Your task to perform on an android device: turn on translation in the chrome app Image 0: 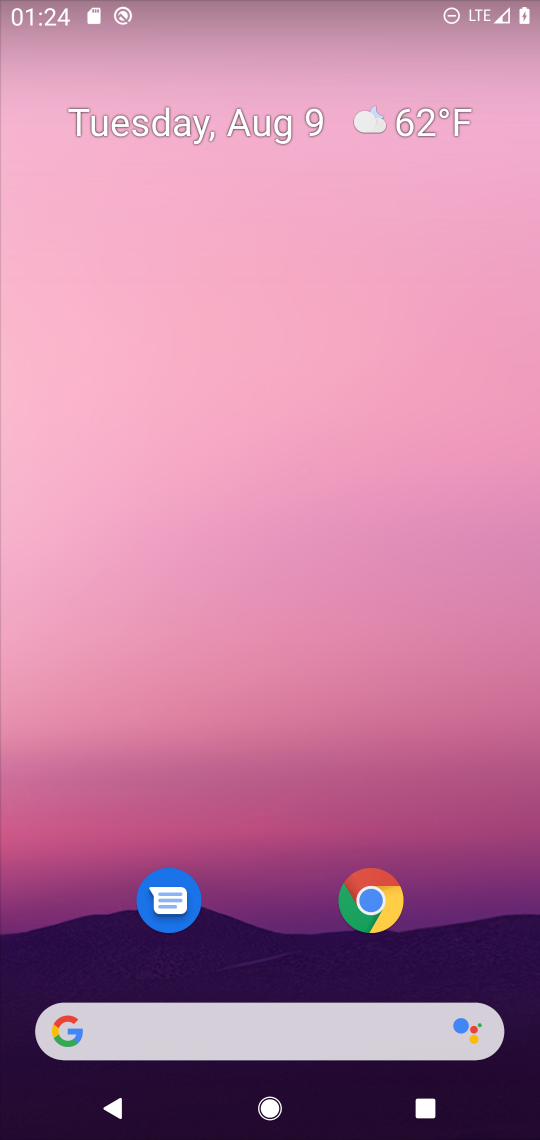
Step 0: press home button
Your task to perform on an android device: turn on translation in the chrome app Image 1: 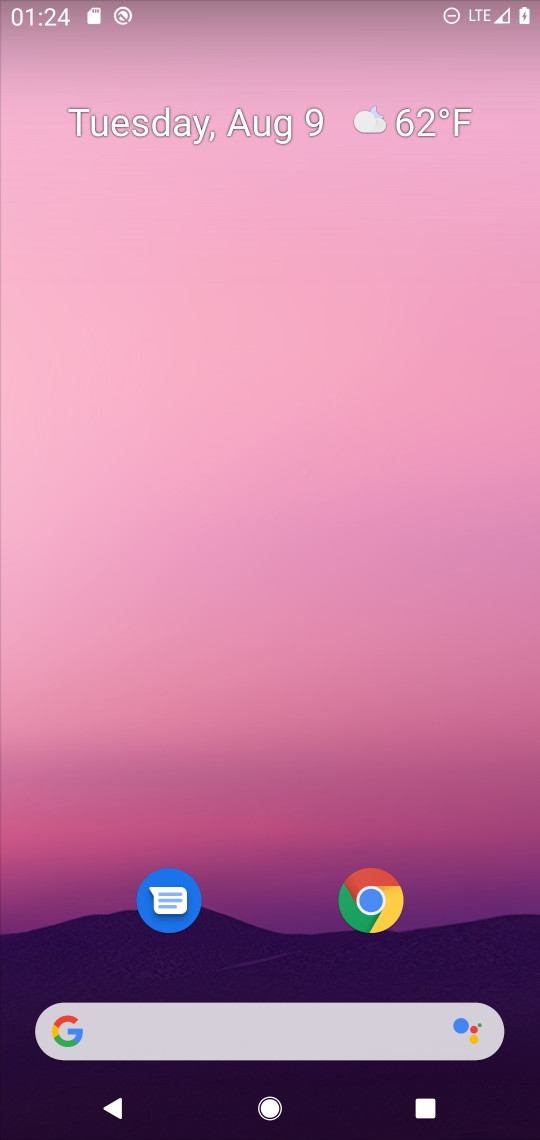
Step 1: drag from (277, 924) to (305, 141)
Your task to perform on an android device: turn on translation in the chrome app Image 2: 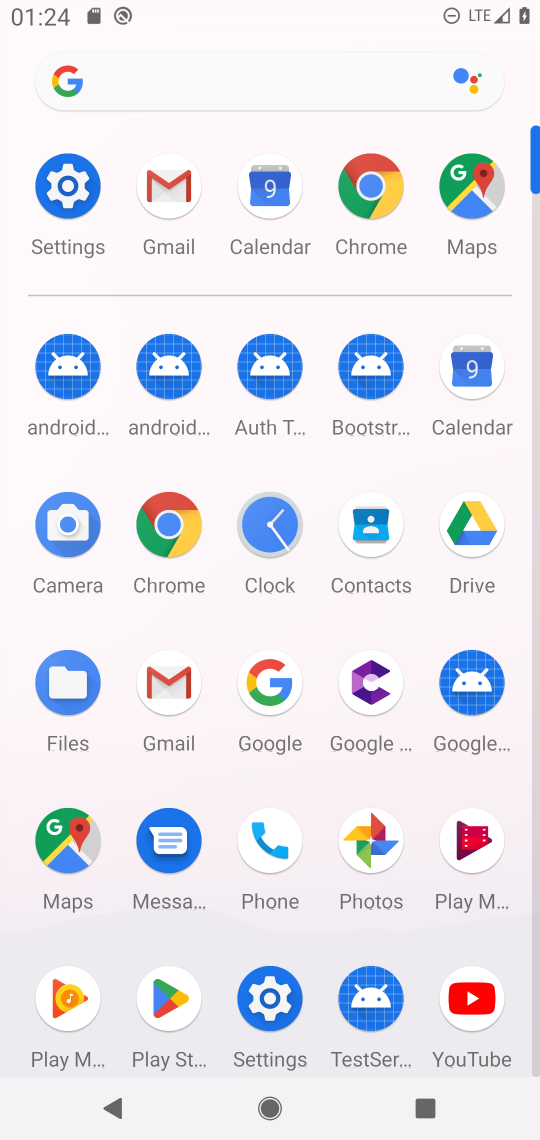
Step 2: click (163, 528)
Your task to perform on an android device: turn on translation in the chrome app Image 3: 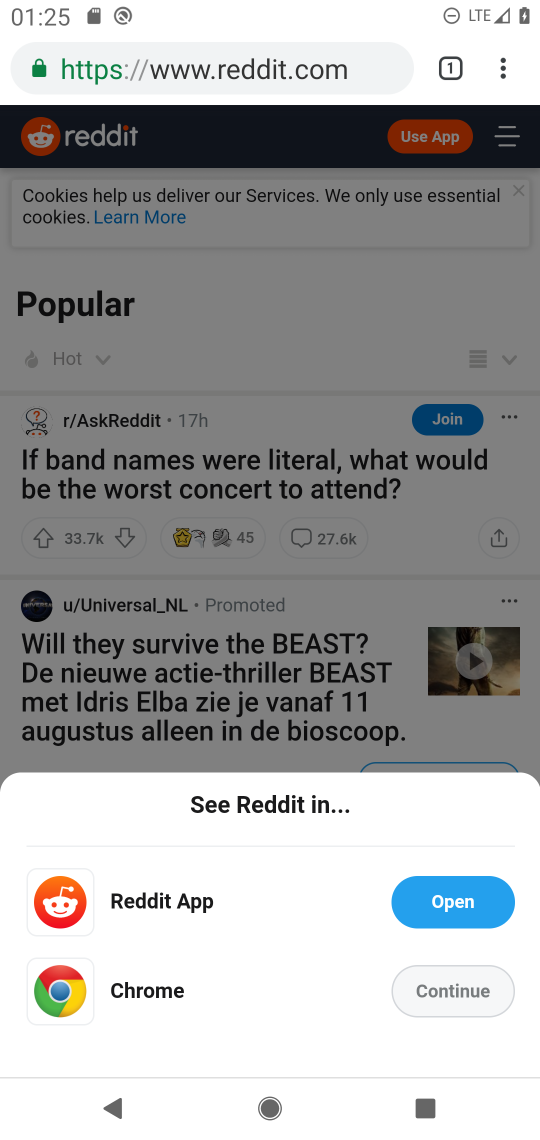
Step 3: click (508, 65)
Your task to perform on an android device: turn on translation in the chrome app Image 4: 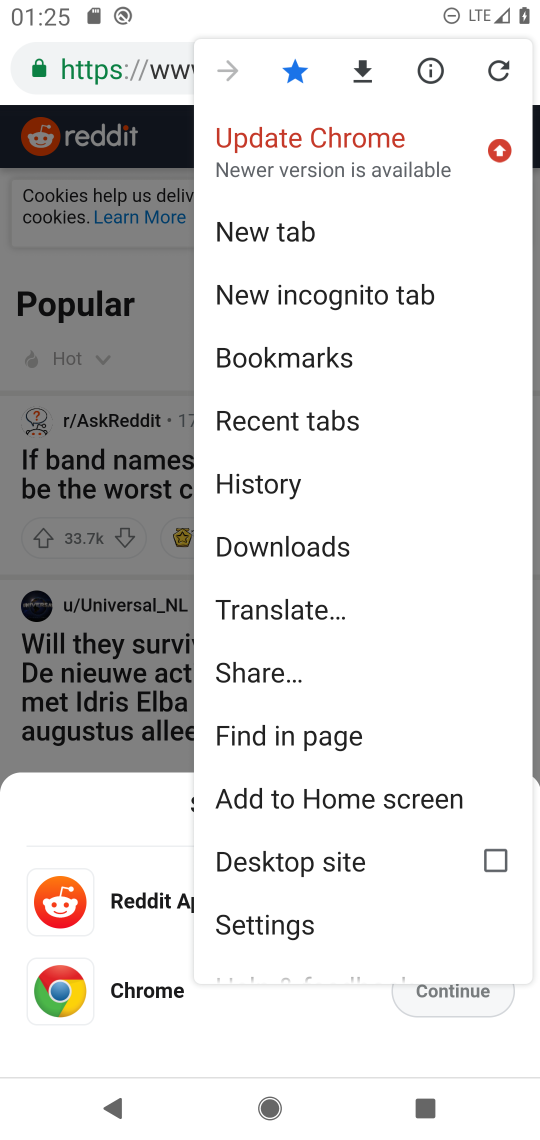
Step 4: click (279, 927)
Your task to perform on an android device: turn on translation in the chrome app Image 5: 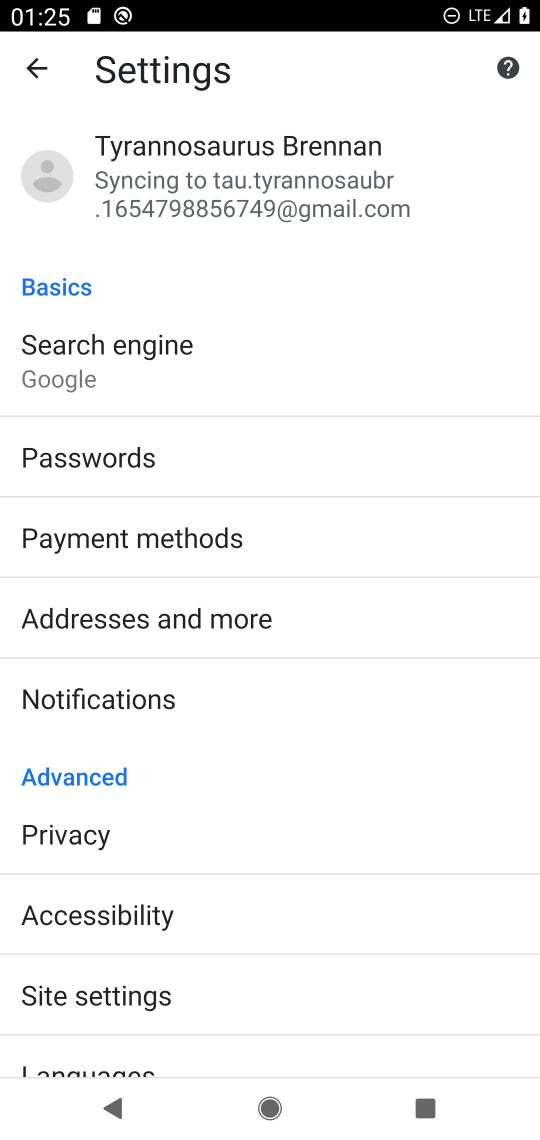
Step 5: drag from (391, 883) to (413, 556)
Your task to perform on an android device: turn on translation in the chrome app Image 6: 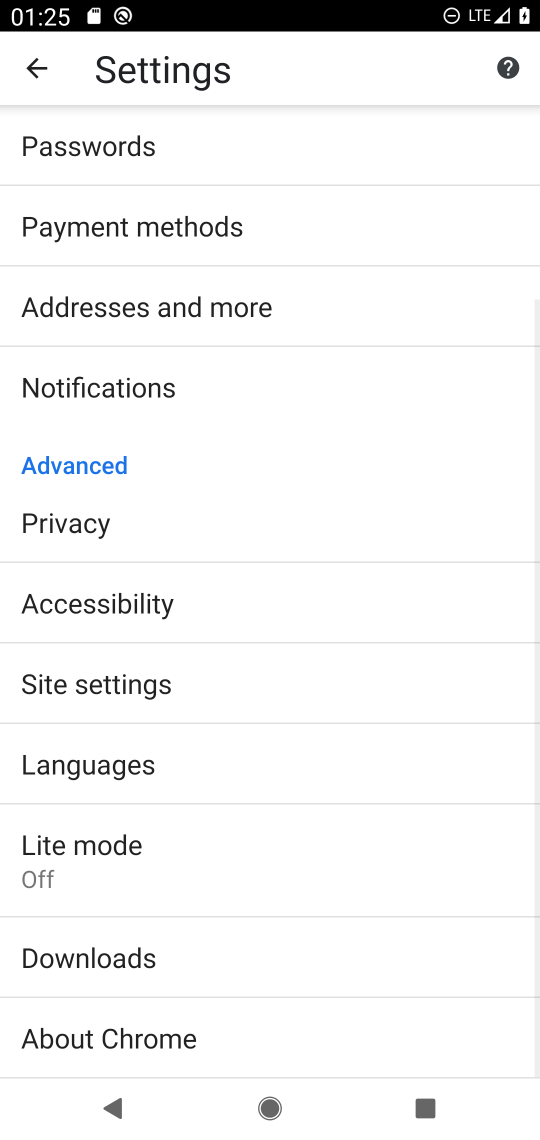
Step 6: drag from (339, 884) to (353, 503)
Your task to perform on an android device: turn on translation in the chrome app Image 7: 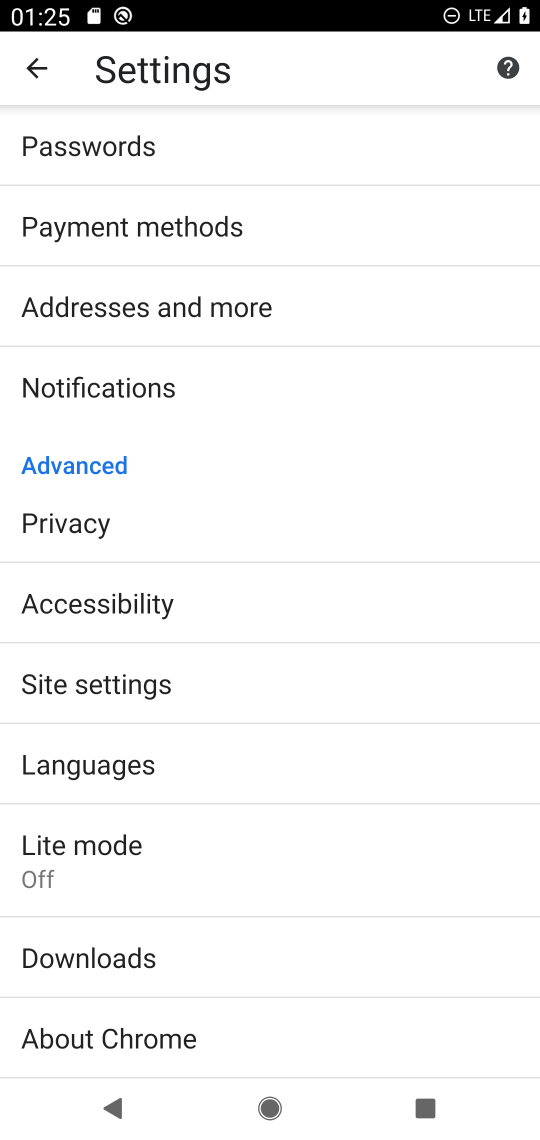
Step 7: drag from (350, 953) to (395, 531)
Your task to perform on an android device: turn on translation in the chrome app Image 8: 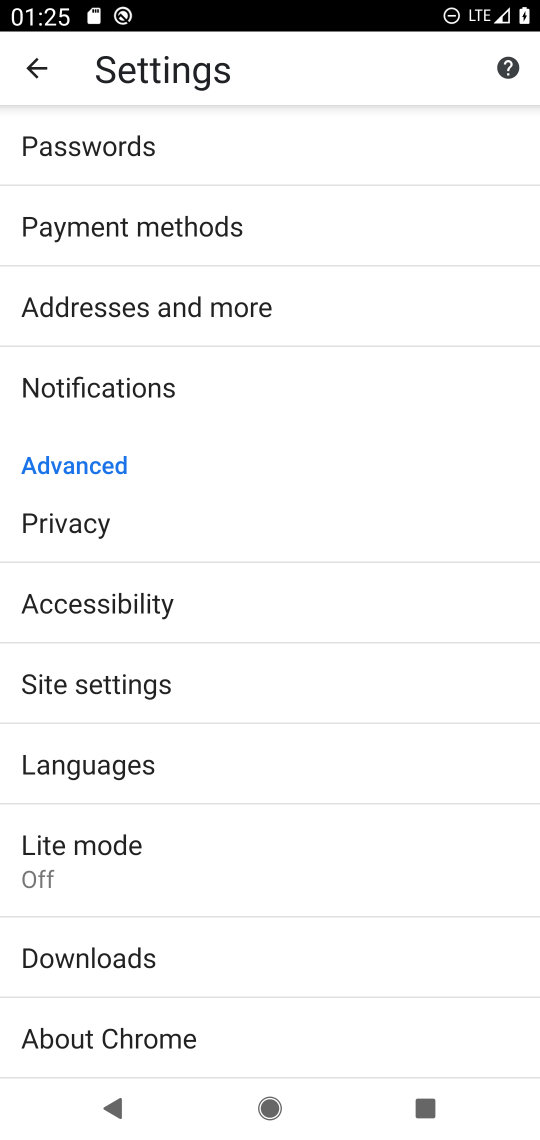
Step 8: click (311, 769)
Your task to perform on an android device: turn on translation in the chrome app Image 9: 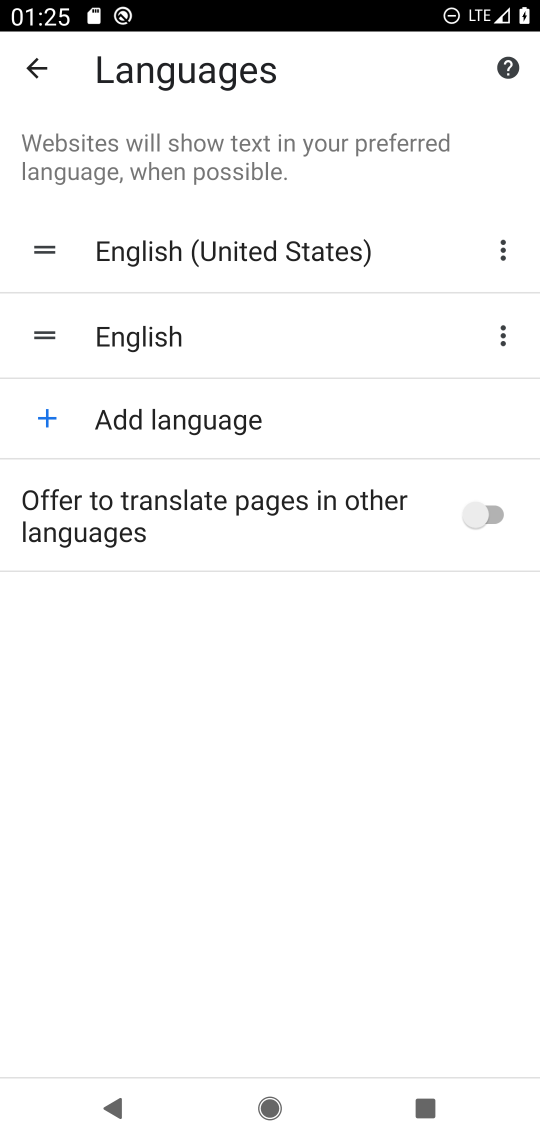
Step 9: click (467, 520)
Your task to perform on an android device: turn on translation in the chrome app Image 10: 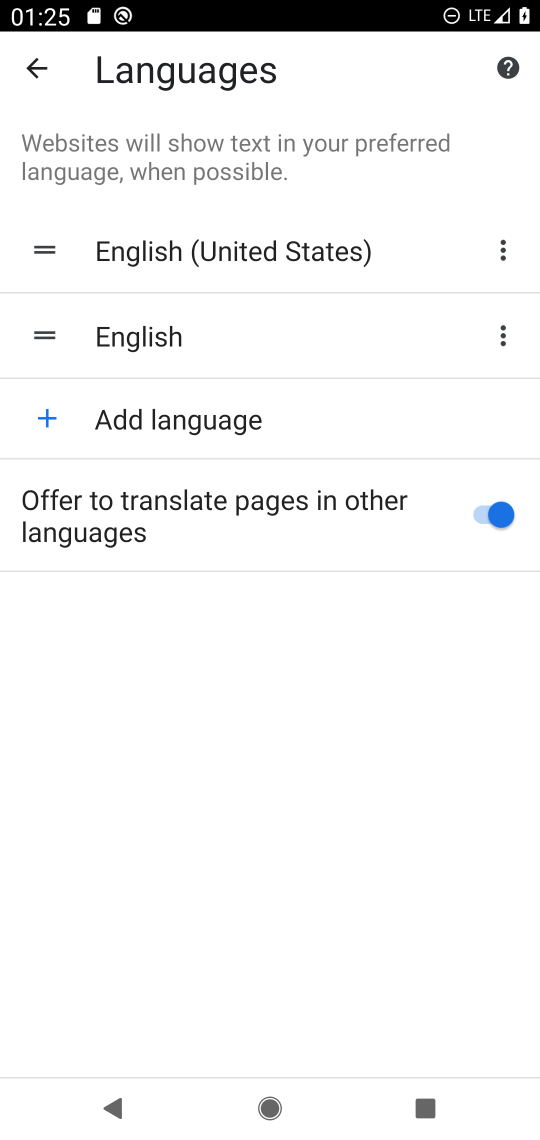
Step 10: task complete